Your task to perform on an android device: turn off airplane mode Image 0: 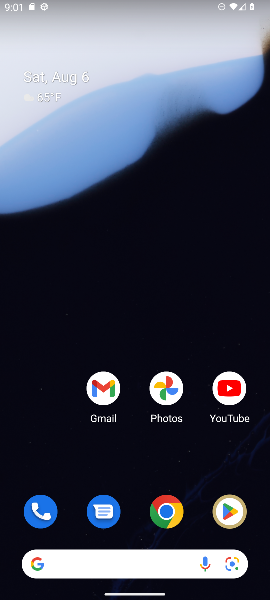
Step 0: drag from (216, 0) to (218, 509)
Your task to perform on an android device: turn off airplane mode Image 1: 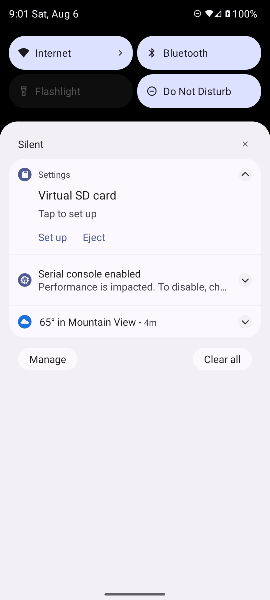
Step 1: drag from (137, 78) to (169, 599)
Your task to perform on an android device: turn off airplane mode Image 2: 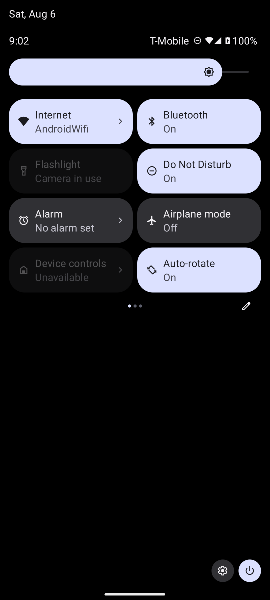
Step 2: click (225, 207)
Your task to perform on an android device: turn off airplane mode Image 3: 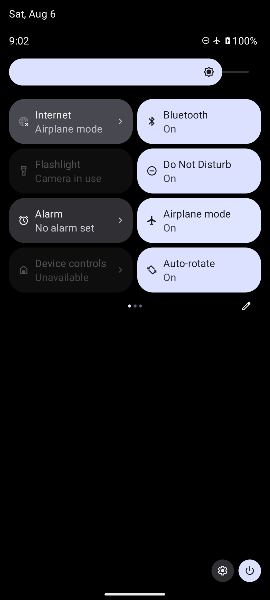
Step 3: task complete